Your task to perform on an android device: Go to accessibility settings Image 0: 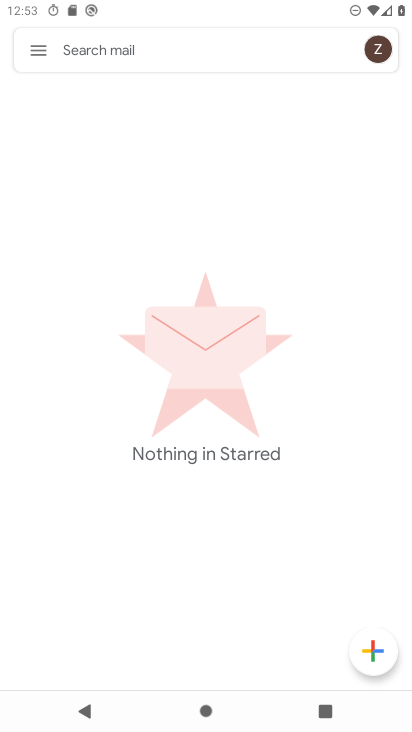
Step 0: press home button
Your task to perform on an android device: Go to accessibility settings Image 1: 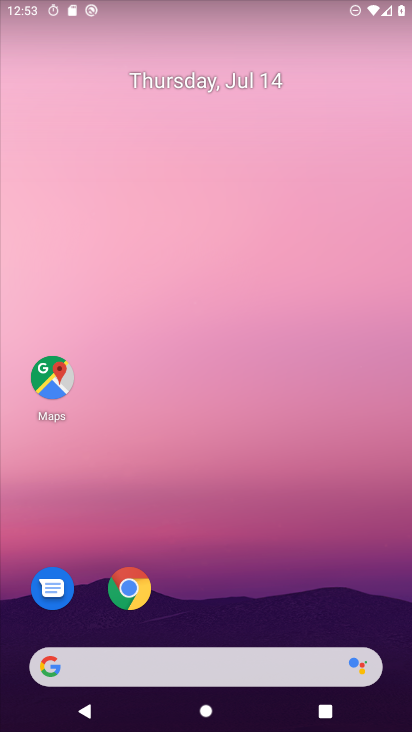
Step 1: drag from (172, 666) to (314, 211)
Your task to perform on an android device: Go to accessibility settings Image 2: 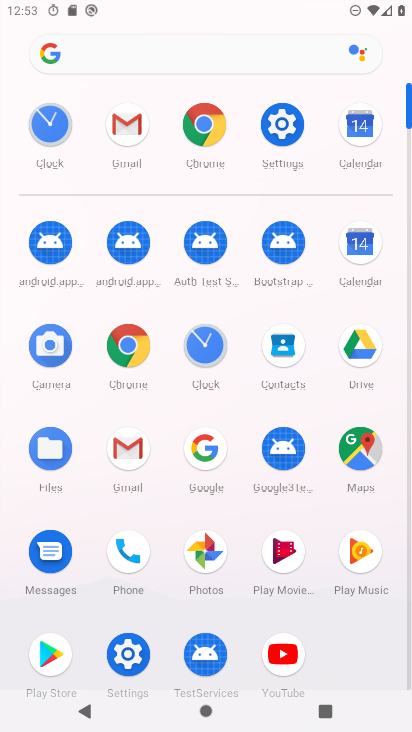
Step 2: click (290, 119)
Your task to perform on an android device: Go to accessibility settings Image 3: 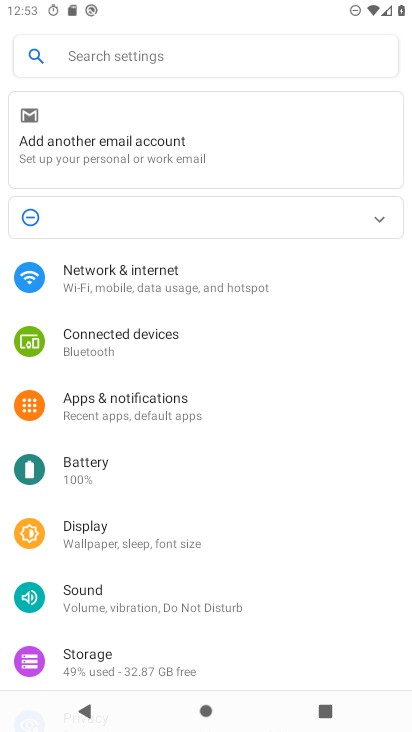
Step 3: drag from (225, 609) to (363, 39)
Your task to perform on an android device: Go to accessibility settings Image 4: 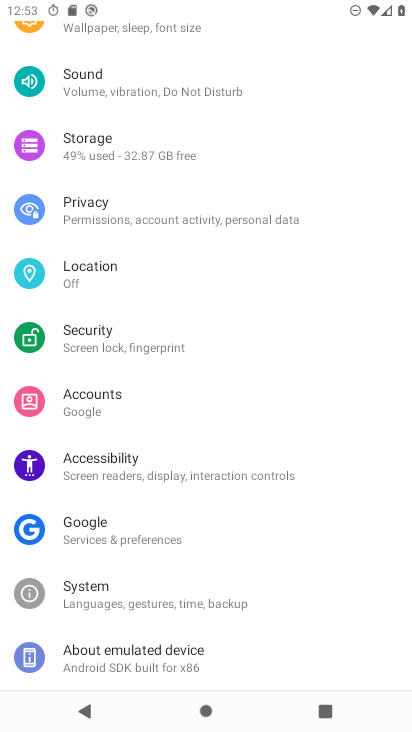
Step 4: click (118, 468)
Your task to perform on an android device: Go to accessibility settings Image 5: 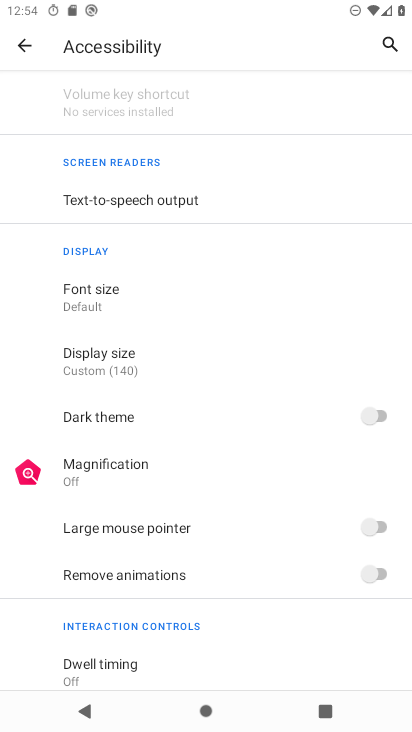
Step 5: task complete